Your task to perform on an android device: Open display settings Image 0: 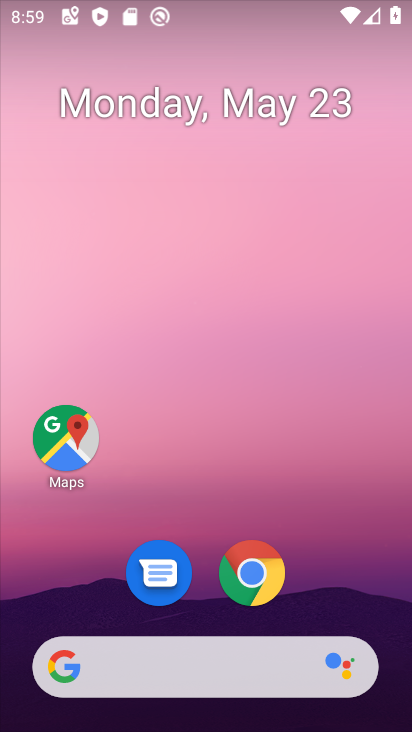
Step 0: drag from (370, 600) to (372, 283)
Your task to perform on an android device: Open display settings Image 1: 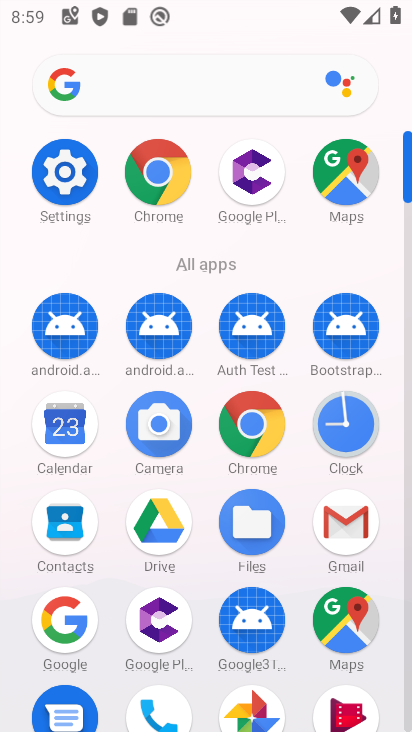
Step 1: click (72, 157)
Your task to perform on an android device: Open display settings Image 2: 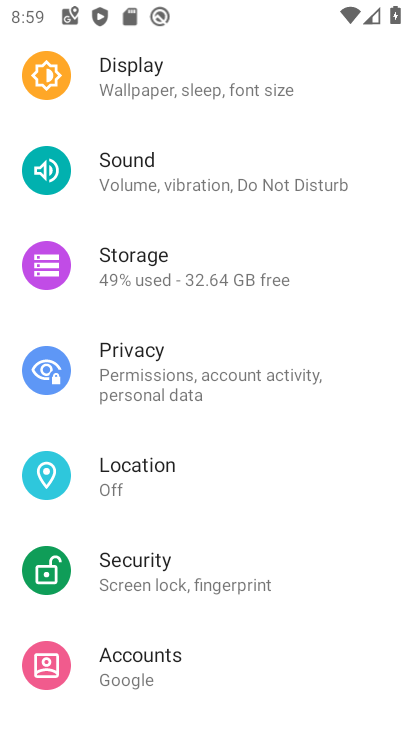
Step 2: drag from (343, 608) to (342, 518)
Your task to perform on an android device: Open display settings Image 3: 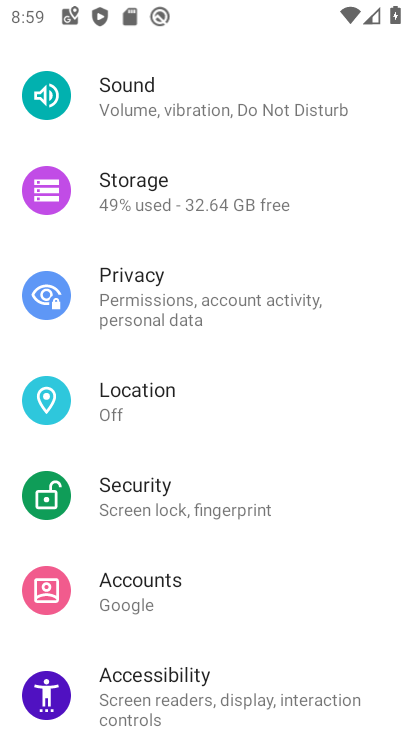
Step 3: drag from (332, 625) to (329, 534)
Your task to perform on an android device: Open display settings Image 4: 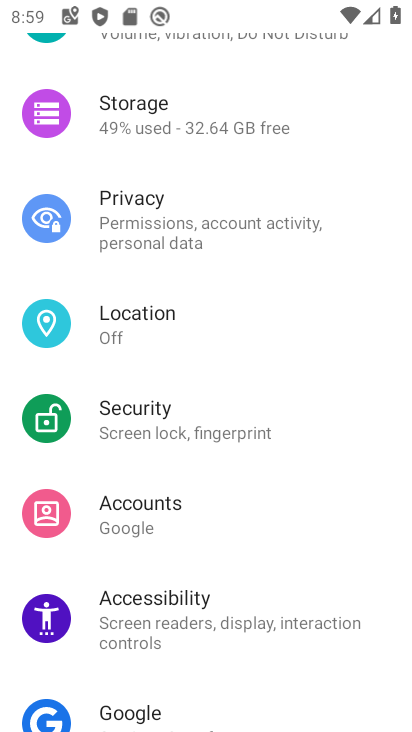
Step 4: drag from (328, 667) to (337, 562)
Your task to perform on an android device: Open display settings Image 5: 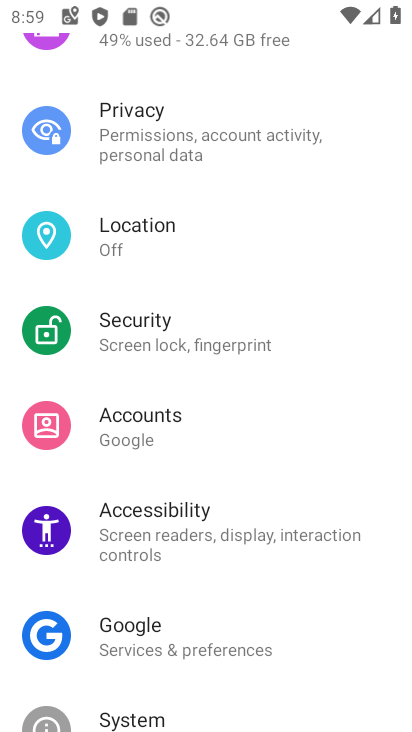
Step 5: drag from (335, 648) to (335, 559)
Your task to perform on an android device: Open display settings Image 6: 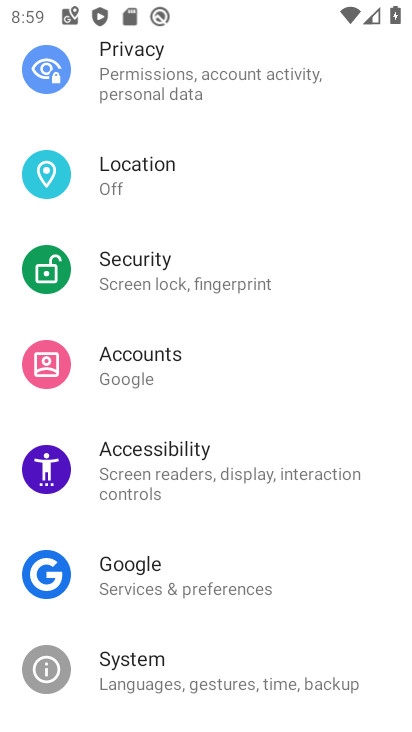
Step 6: drag from (322, 654) to (349, 509)
Your task to perform on an android device: Open display settings Image 7: 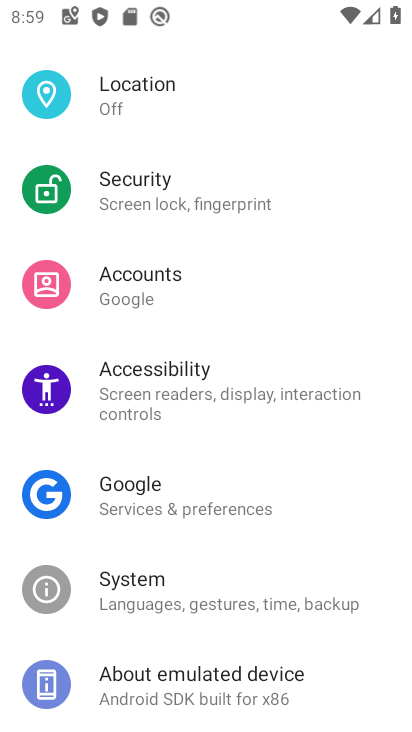
Step 7: drag from (349, 460) to (351, 545)
Your task to perform on an android device: Open display settings Image 8: 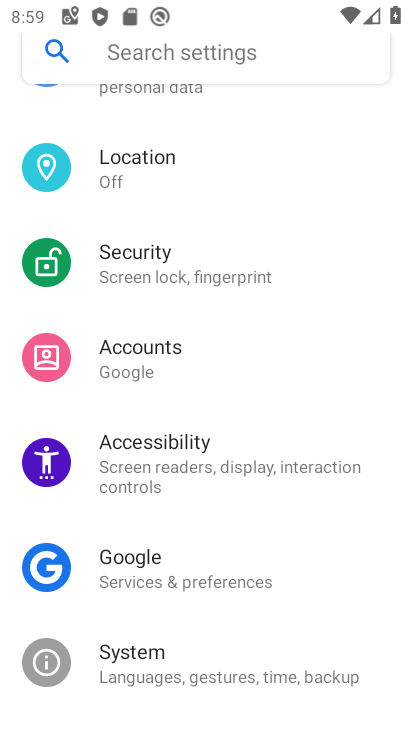
Step 8: drag from (353, 392) to (338, 512)
Your task to perform on an android device: Open display settings Image 9: 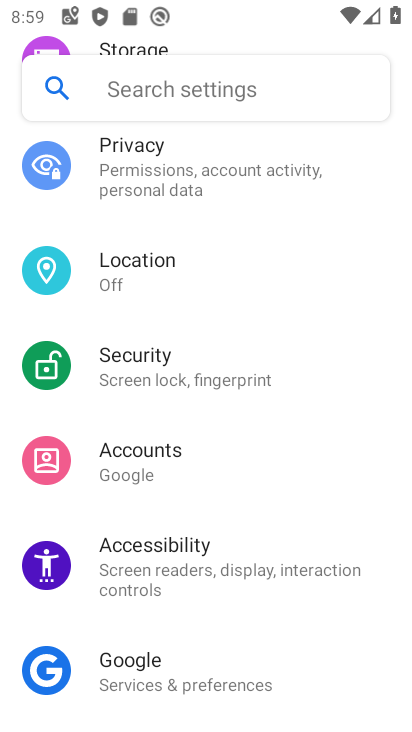
Step 9: drag from (333, 405) to (341, 488)
Your task to perform on an android device: Open display settings Image 10: 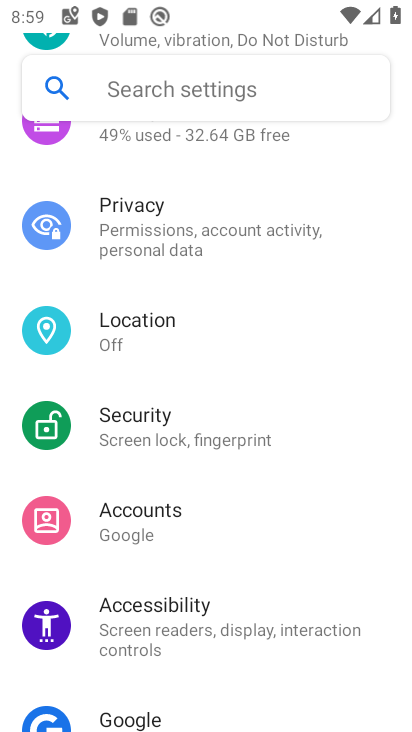
Step 10: drag from (337, 411) to (337, 509)
Your task to perform on an android device: Open display settings Image 11: 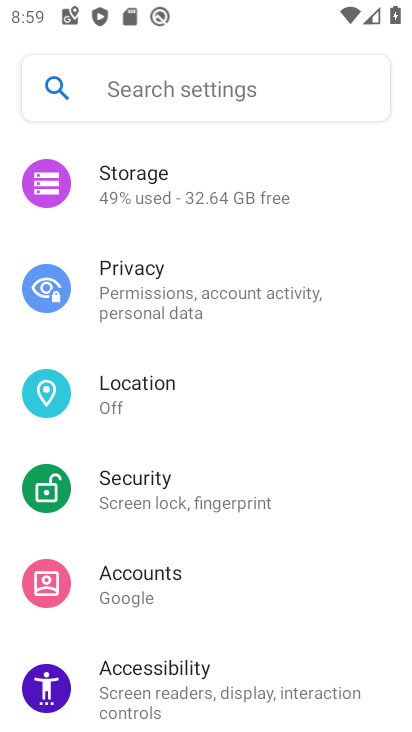
Step 11: drag from (335, 416) to (336, 504)
Your task to perform on an android device: Open display settings Image 12: 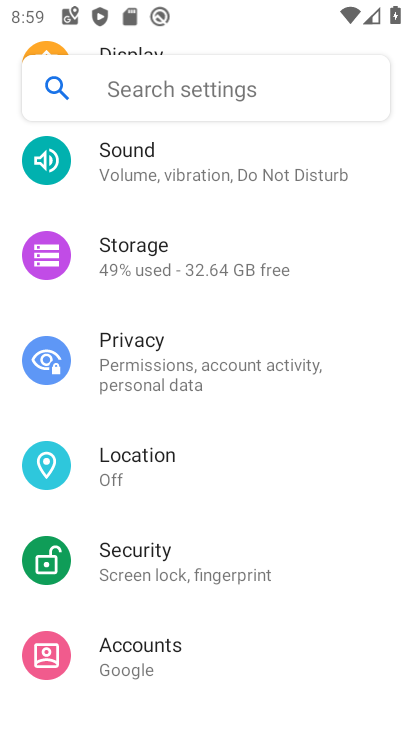
Step 12: drag from (324, 432) to (330, 504)
Your task to perform on an android device: Open display settings Image 13: 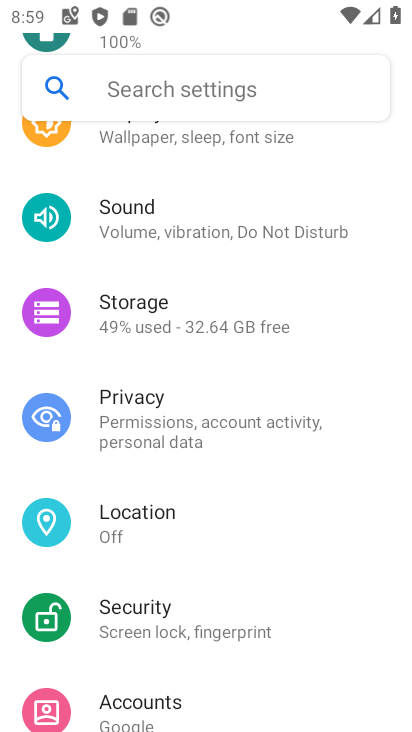
Step 13: drag from (322, 311) to (328, 411)
Your task to perform on an android device: Open display settings Image 14: 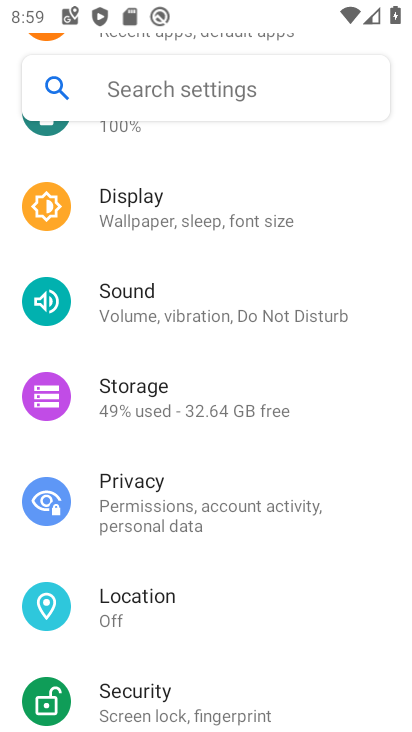
Step 14: drag from (364, 288) to (356, 386)
Your task to perform on an android device: Open display settings Image 15: 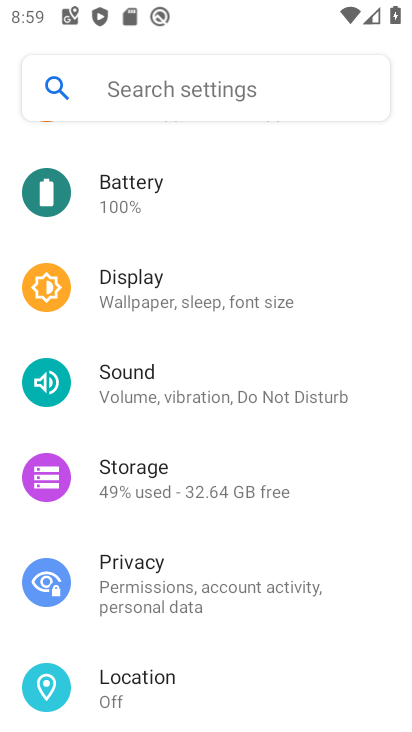
Step 15: drag from (364, 286) to (365, 392)
Your task to perform on an android device: Open display settings Image 16: 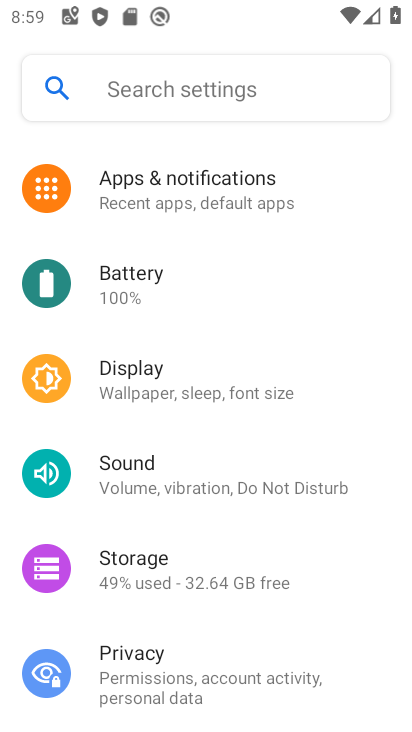
Step 16: drag from (359, 309) to (344, 416)
Your task to perform on an android device: Open display settings Image 17: 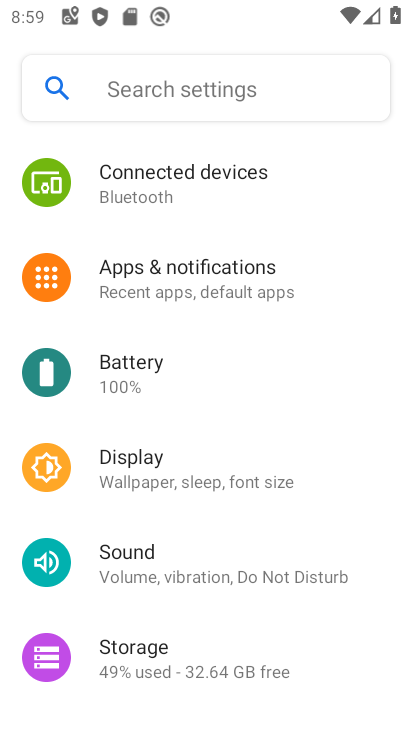
Step 17: click (284, 469)
Your task to perform on an android device: Open display settings Image 18: 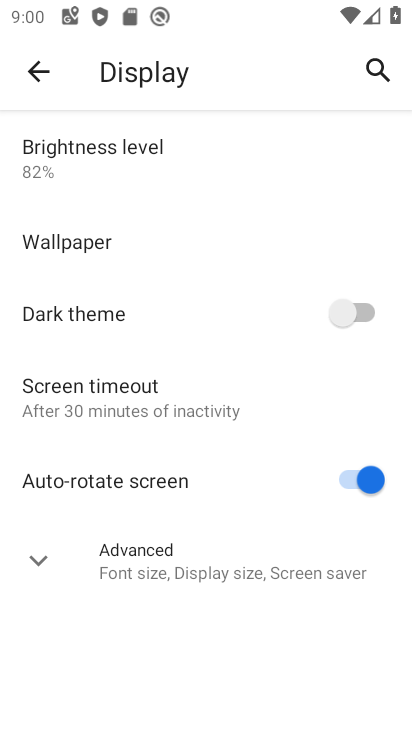
Step 18: task complete